Your task to perform on an android device: open app "Pandora - Music & Podcasts" (install if not already installed) and go to login screen Image 0: 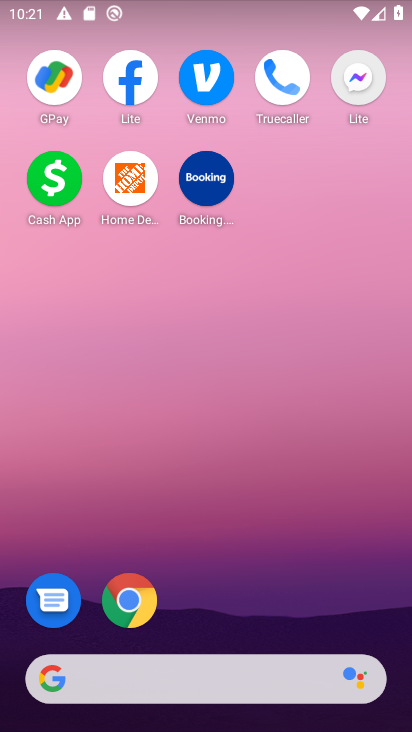
Step 0: drag from (212, 577) to (240, 178)
Your task to perform on an android device: open app "Pandora - Music & Podcasts" (install if not already installed) and go to login screen Image 1: 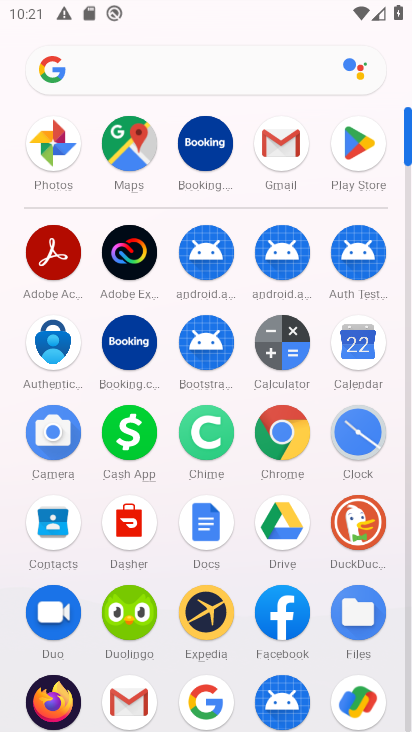
Step 1: click (351, 136)
Your task to perform on an android device: open app "Pandora - Music & Podcasts" (install if not already installed) and go to login screen Image 2: 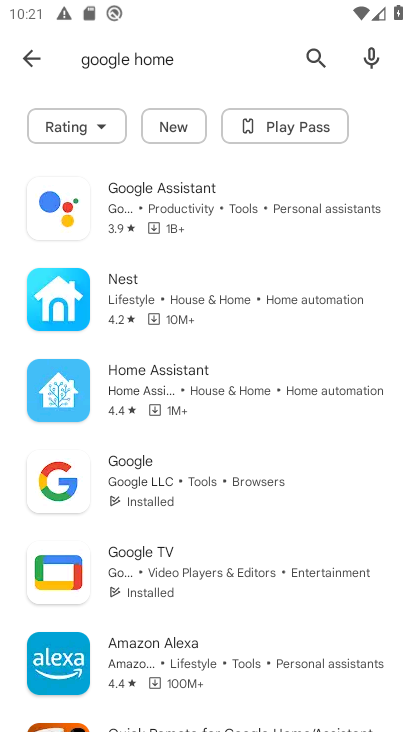
Step 2: drag from (321, 54) to (366, 54)
Your task to perform on an android device: open app "Pandora - Music & Podcasts" (install if not already installed) and go to login screen Image 3: 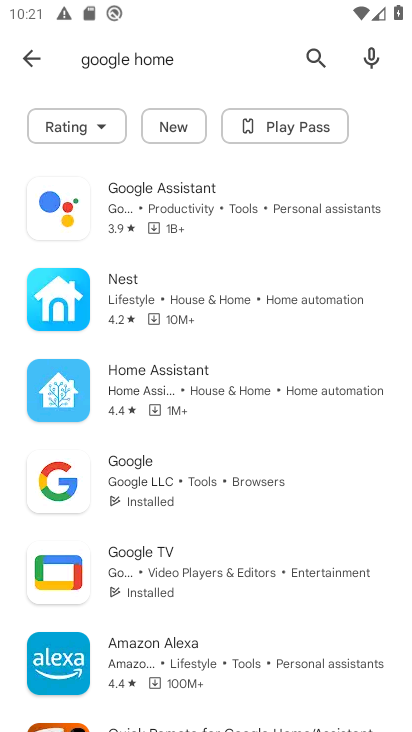
Step 3: click (319, 62)
Your task to perform on an android device: open app "Pandora - Music & Podcasts" (install if not already installed) and go to login screen Image 4: 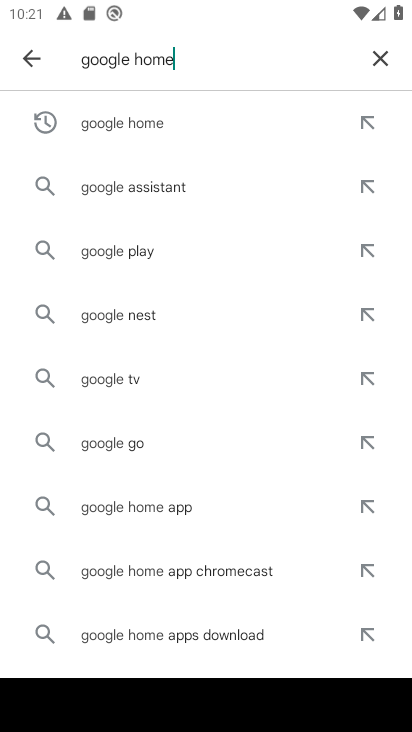
Step 4: click (375, 47)
Your task to perform on an android device: open app "Pandora - Music & Podcasts" (install if not already installed) and go to login screen Image 5: 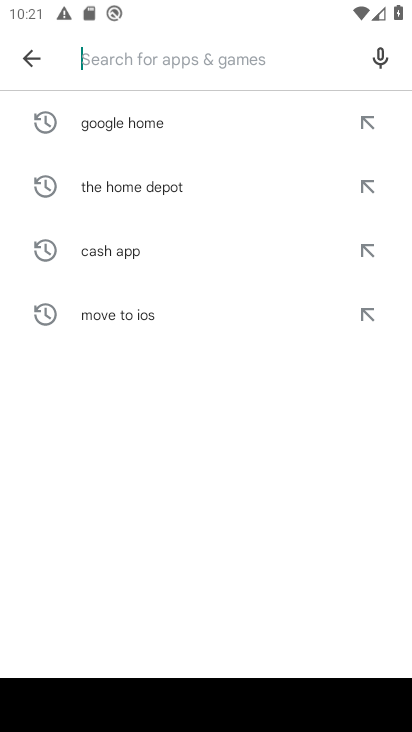
Step 5: type "Pandora - Music & Podcasts"
Your task to perform on an android device: open app "Pandora - Music & Podcasts" (install if not already installed) and go to login screen Image 6: 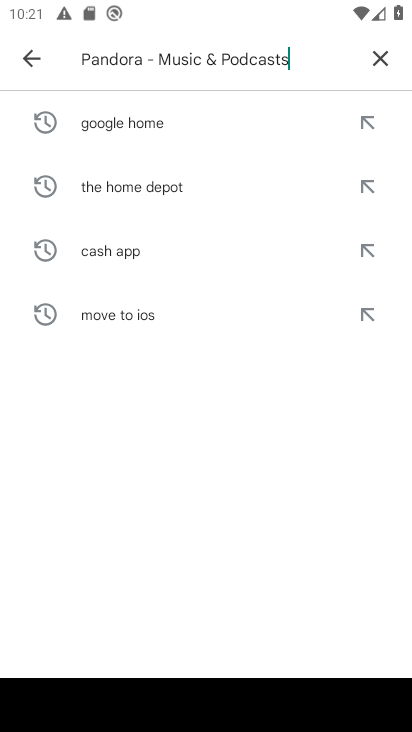
Step 6: type ""
Your task to perform on an android device: open app "Pandora - Music & Podcasts" (install if not already installed) and go to login screen Image 7: 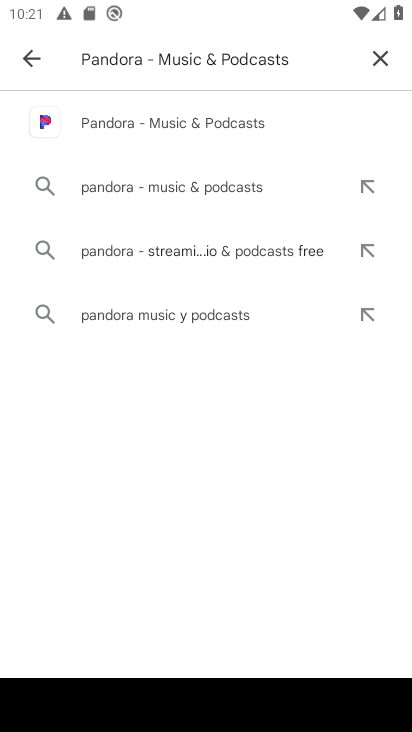
Step 7: click (185, 112)
Your task to perform on an android device: open app "Pandora - Music & Podcasts" (install if not already installed) and go to login screen Image 8: 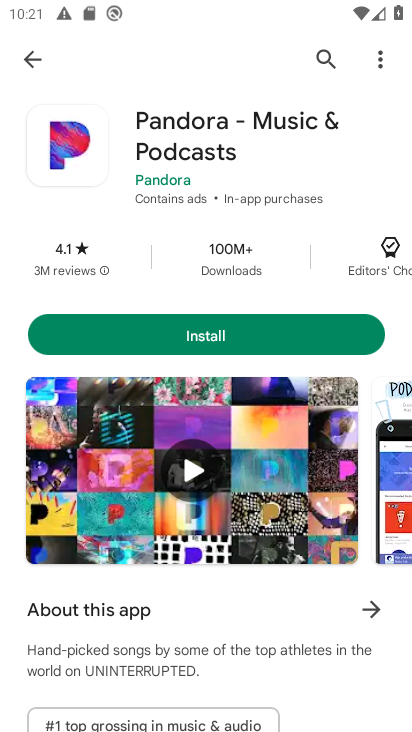
Step 8: click (185, 347)
Your task to perform on an android device: open app "Pandora - Music & Podcasts" (install if not already installed) and go to login screen Image 9: 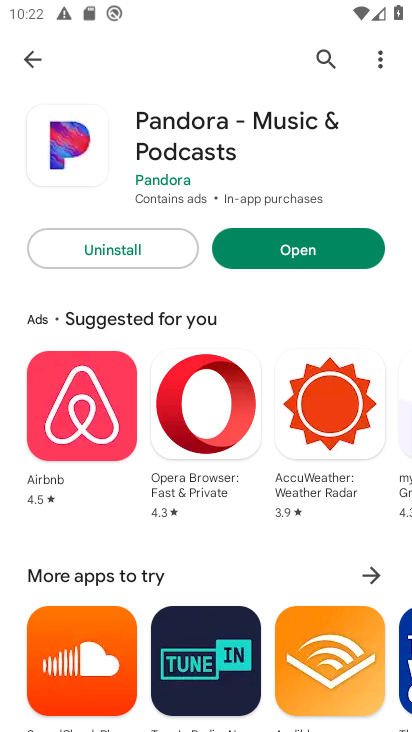
Step 9: click (359, 246)
Your task to perform on an android device: open app "Pandora - Music & Podcasts" (install if not already installed) and go to login screen Image 10: 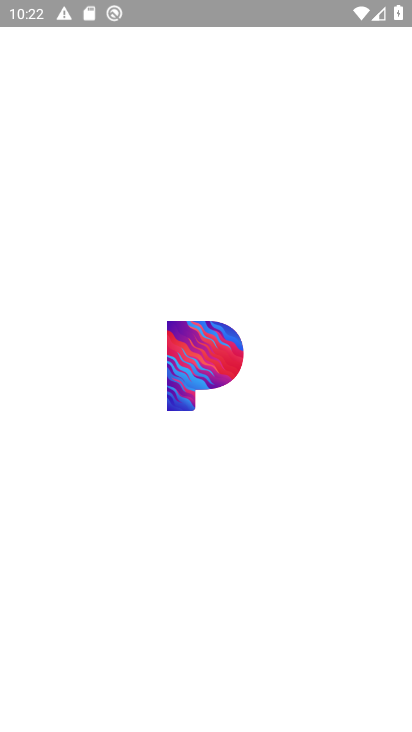
Step 10: task complete